Your task to perform on an android device: change the clock style Image 0: 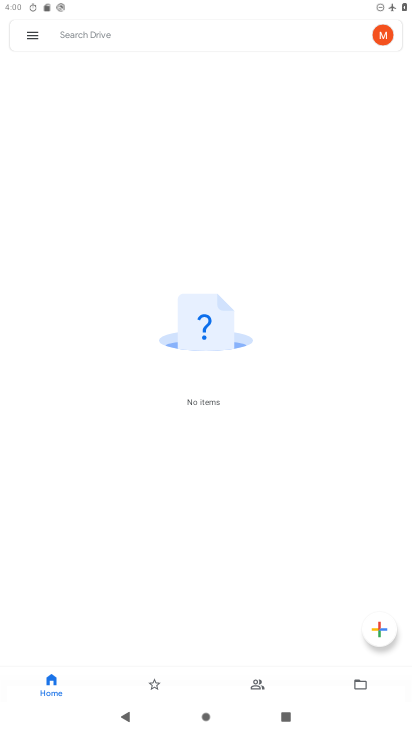
Step 0: press home button
Your task to perform on an android device: change the clock style Image 1: 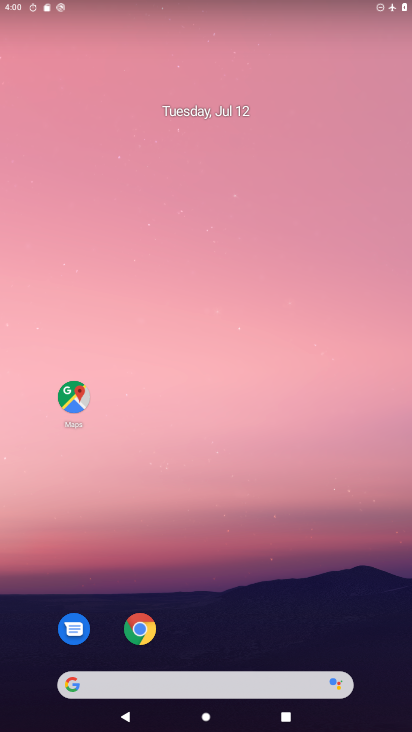
Step 1: drag from (261, 640) to (314, 33)
Your task to perform on an android device: change the clock style Image 2: 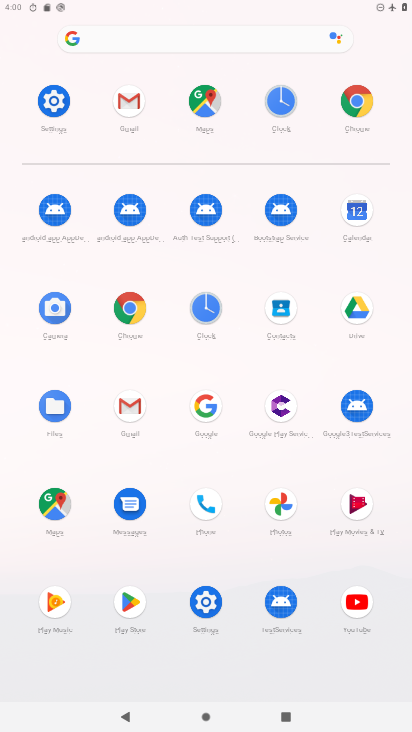
Step 2: click (205, 309)
Your task to perform on an android device: change the clock style Image 3: 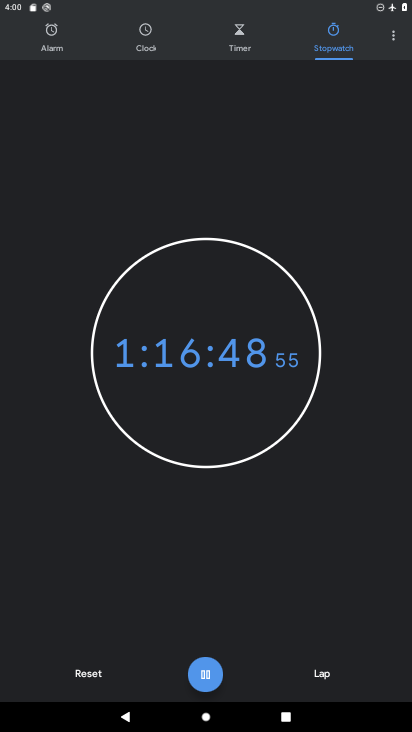
Step 3: click (397, 37)
Your task to perform on an android device: change the clock style Image 4: 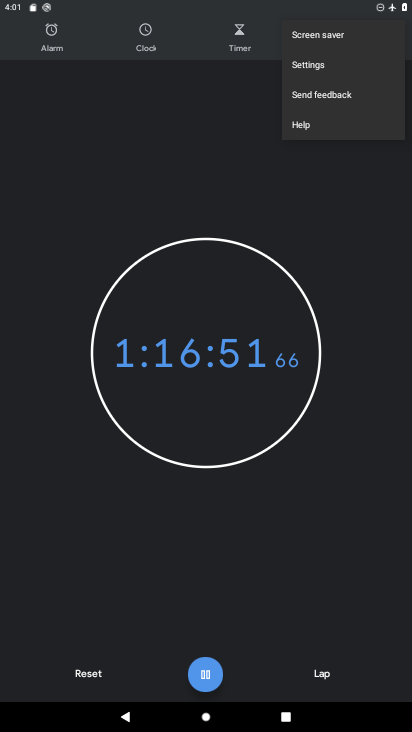
Step 4: click (304, 58)
Your task to perform on an android device: change the clock style Image 5: 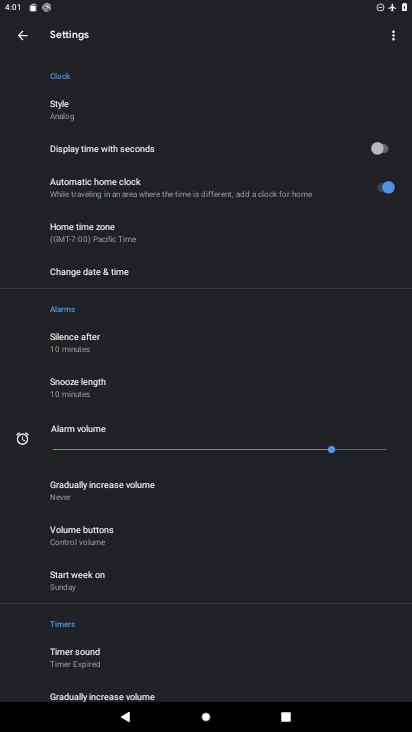
Step 5: click (55, 116)
Your task to perform on an android device: change the clock style Image 6: 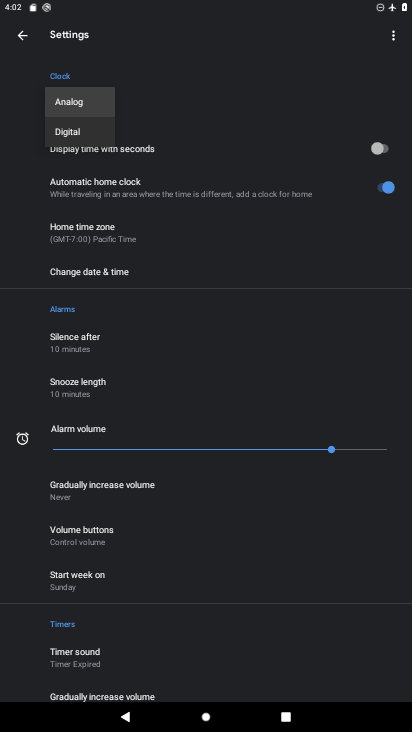
Step 6: click (87, 119)
Your task to perform on an android device: change the clock style Image 7: 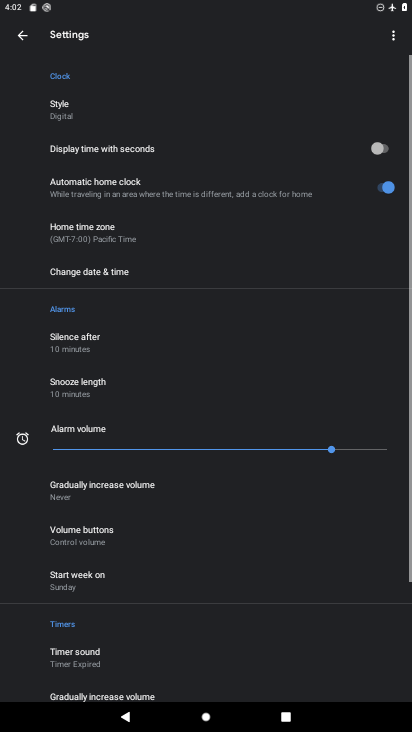
Step 7: task complete